Your task to perform on an android device: make emails show in primary in the gmail app Image 0: 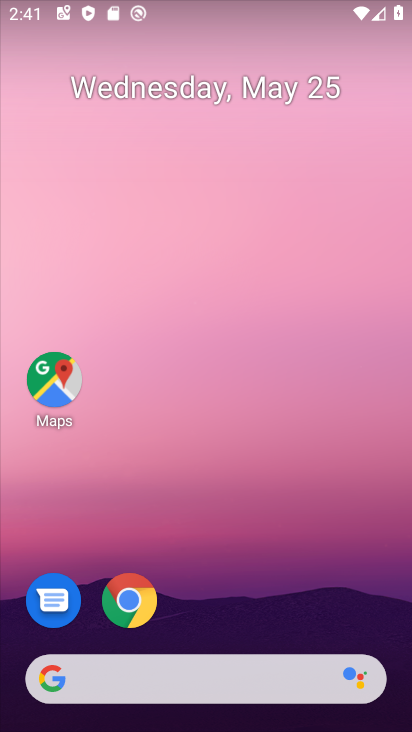
Step 0: press home button
Your task to perform on an android device: make emails show in primary in the gmail app Image 1: 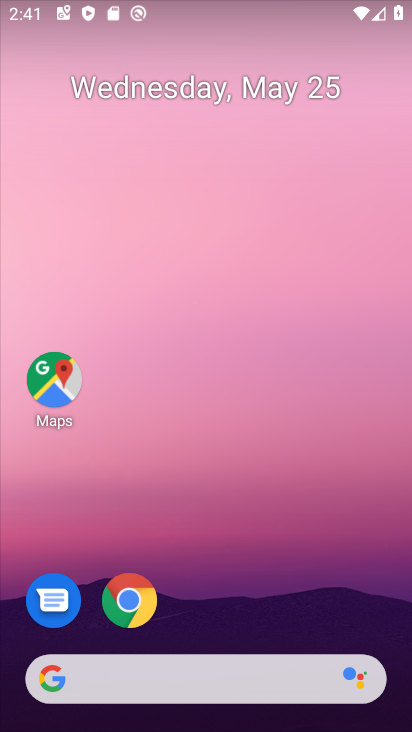
Step 1: drag from (28, 538) to (229, 35)
Your task to perform on an android device: make emails show in primary in the gmail app Image 2: 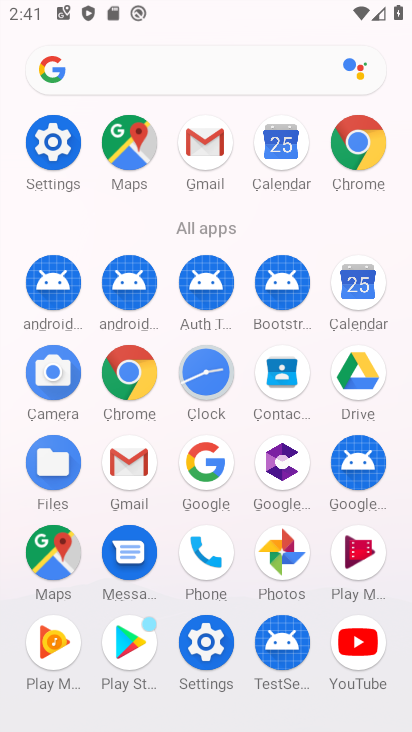
Step 2: click (107, 460)
Your task to perform on an android device: make emails show in primary in the gmail app Image 3: 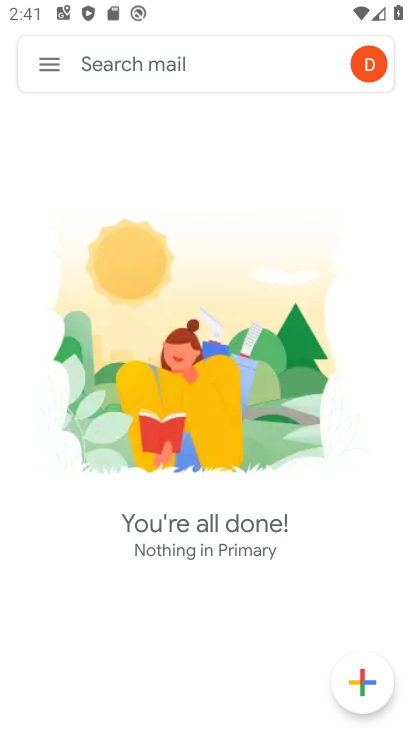
Step 3: click (43, 68)
Your task to perform on an android device: make emails show in primary in the gmail app Image 4: 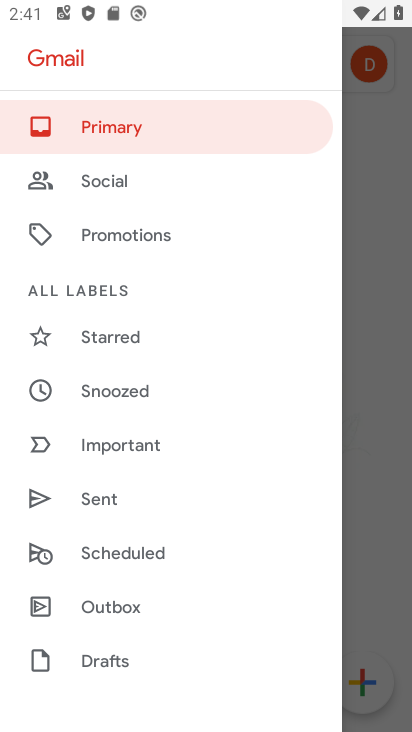
Step 4: click (125, 127)
Your task to perform on an android device: make emails show in primary in the gmail app Image 5: 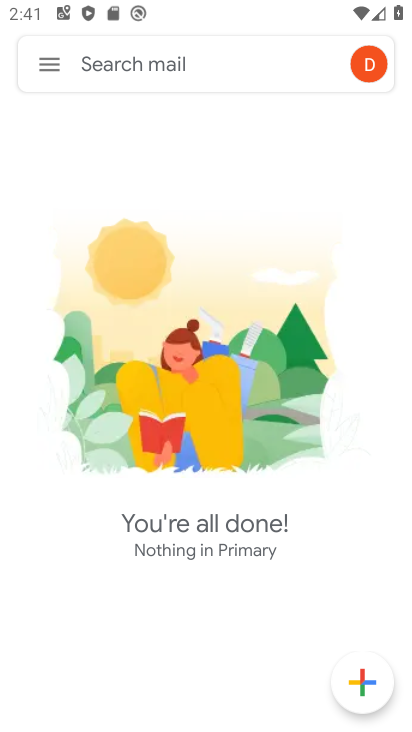
Step 5: task complete